Your task to perform on an android device: Go to battery settings Image 0: 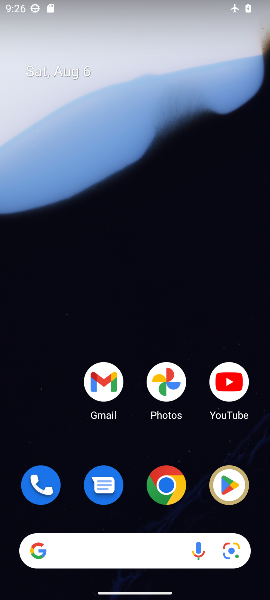
Step 0: drag from (138, 451) to (159, 31)
Your task to perform on an android device: Go to battery settings Image 1: 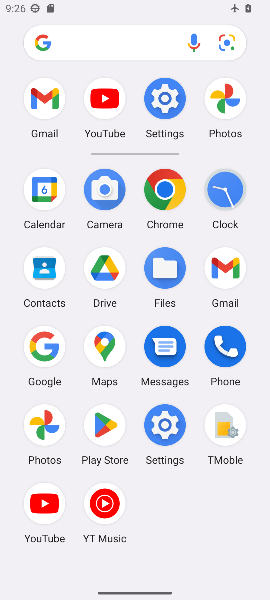
Step 1: click (164, 414)
Your task to perform on an android device: Go to battery settings Image 2: 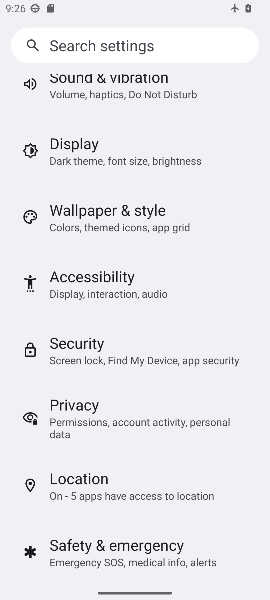
Step 2: drag from (133, 458) to (154, 107)
Your task to perform on an android device: Go to battery settings Image 3: 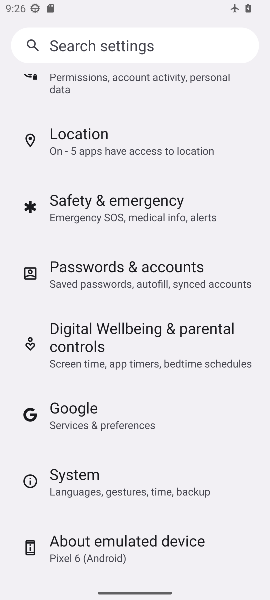
Step 3: drag from (157, 234) to (114, 587)
Your task to perform on an android device: Go to battery settings Image 4: 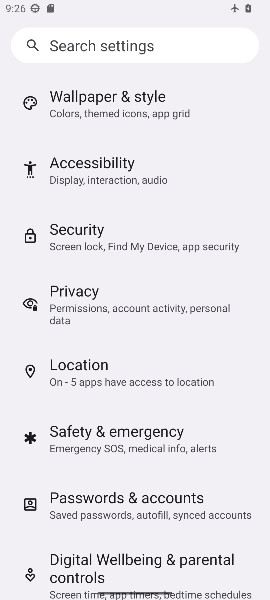
Step 4: drag from (135, 165) to (103, 452)
Your task to perform on an android device: Go to battery settings Image 5: 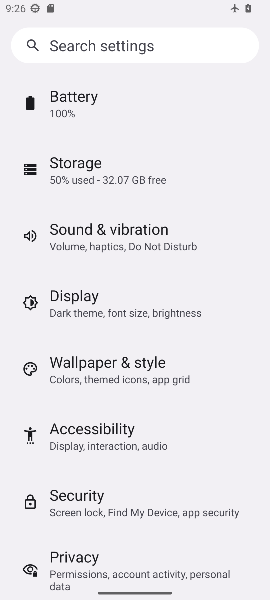
Step 5: click (87, 111)
Your task to perform on an android device: Go to battery settings Image 6: 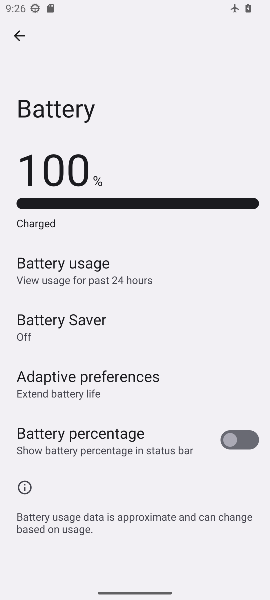
Step 6: task complete